Your task to perform on an android device: show emergency info Image 0: 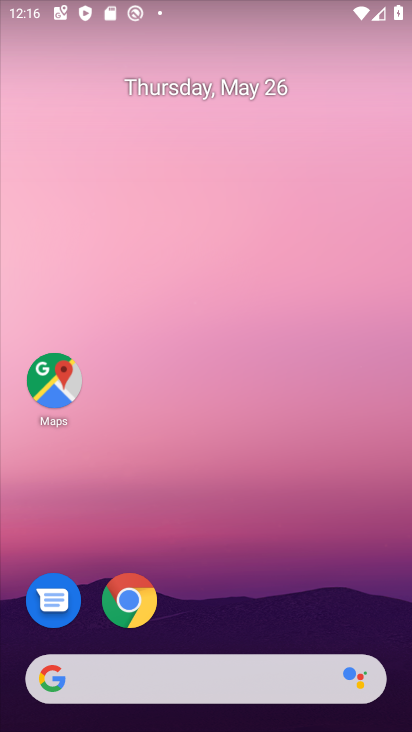
Step 0: drag from (245, 552) to (275, 120)
Your task to perform on an android device: show emergency info Image 1: 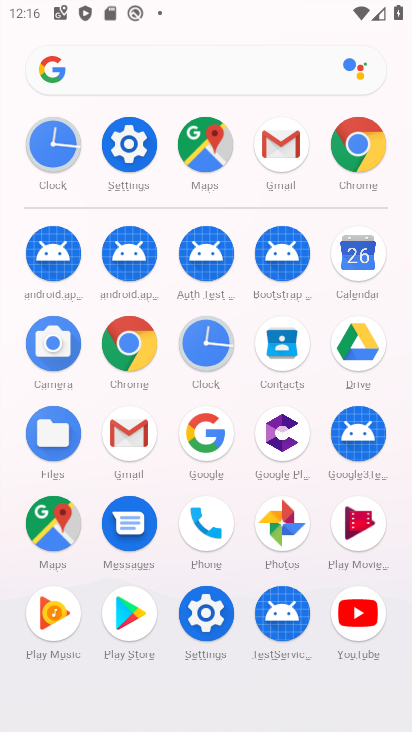
Step 1: click (138, 152)
Your task to perform on an android device: show emergency info Image 2: 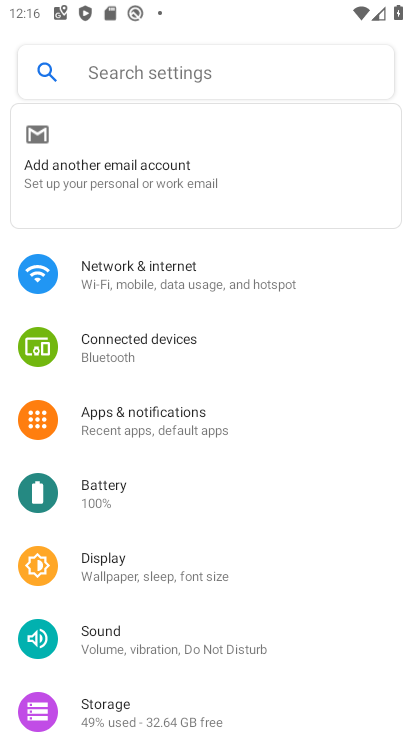
Step 2: drag from (154, 609) to (284, 155)
Your task to perform on an android device: show emergency info Image 3: 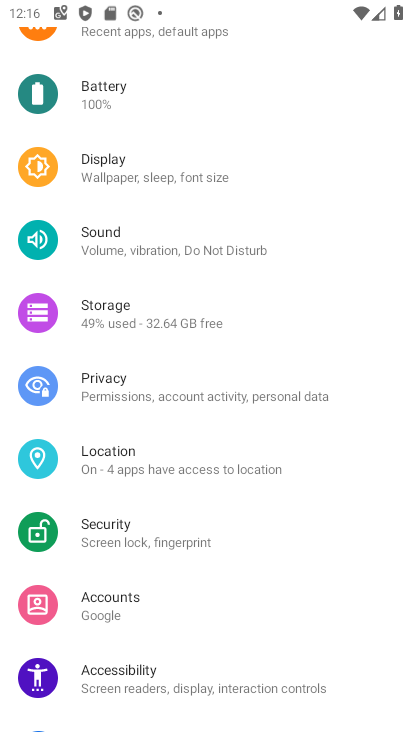
Step 3: drag from (216, 600) to (288, 142)
Your task to perform on an android device: show emergency info Image 4: 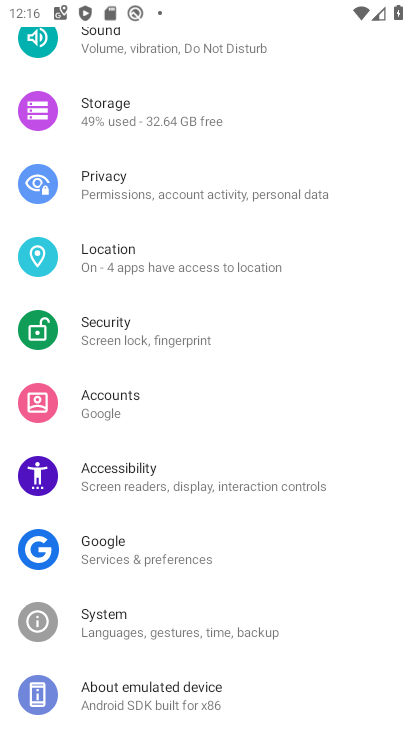
Step 4: click (177, 671)
Your task to perform on an android device: show emergency info Image 5: 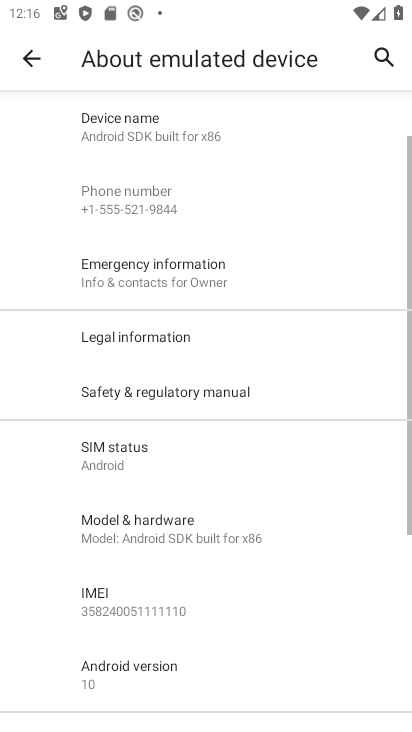
Step 5: click (179, 264)
Your task to perform on an android device: show emergency info Image 6: 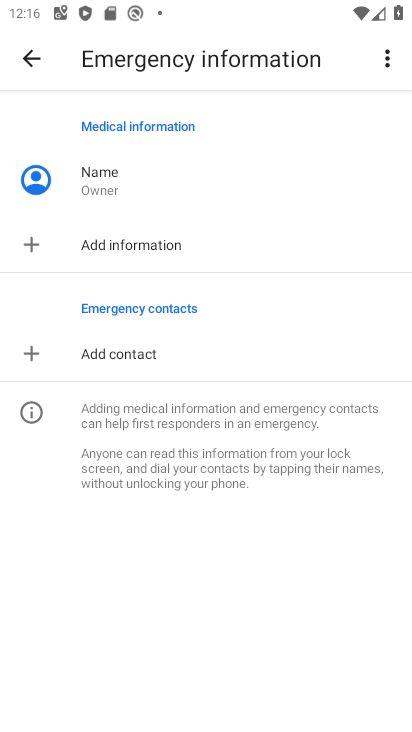
Step 6: task complete